Your task to perform on an android device: Open battery settings Image 0: 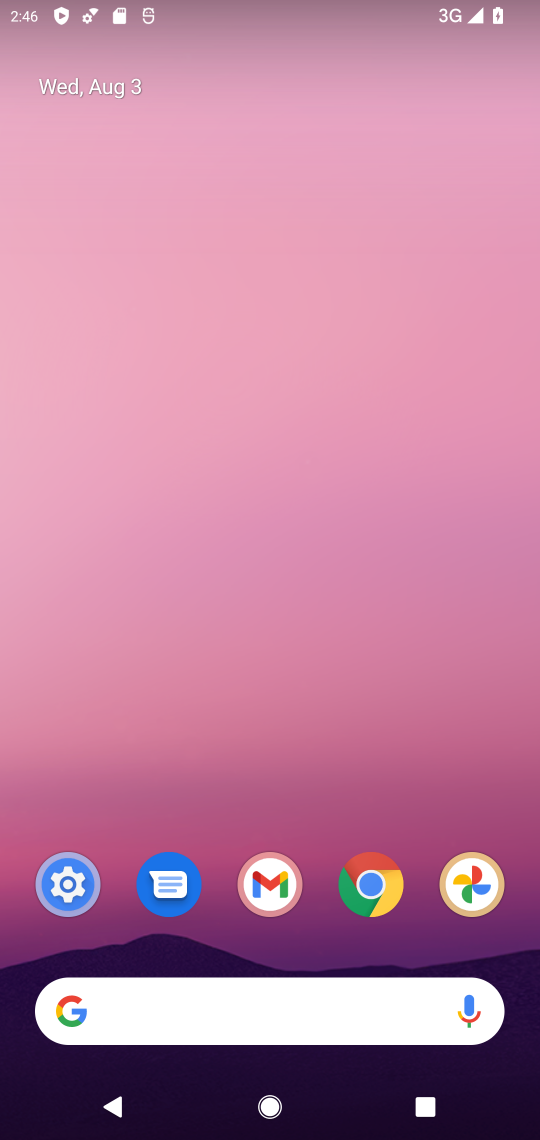
Step 0: click (55, 899)
Your task to perform on an android device: Open battery settings Image 1: 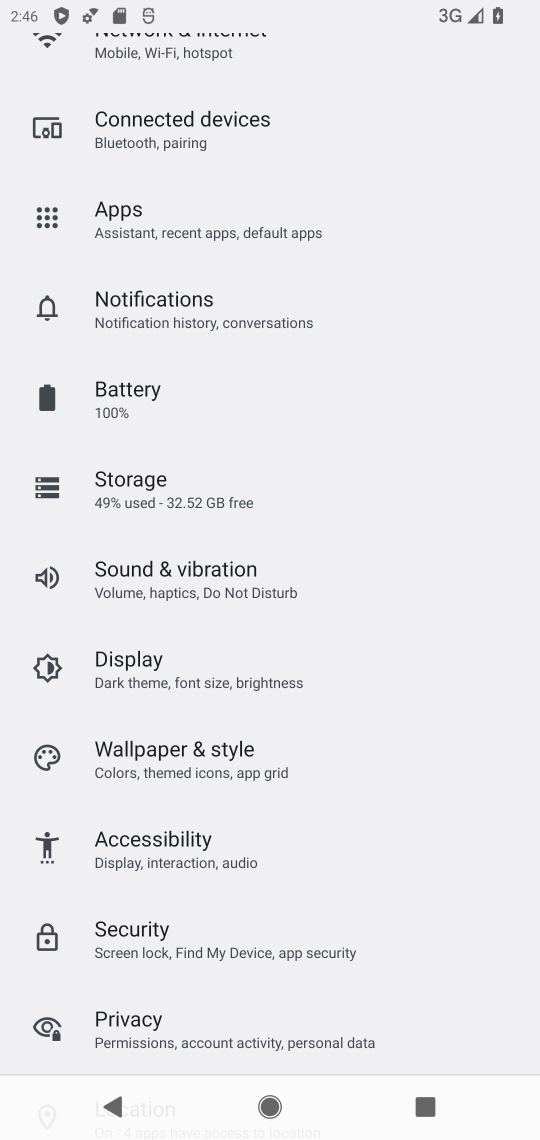
Step 1: click (160, 393)
Your task to perform on an android device: Open battery settings Image 2: 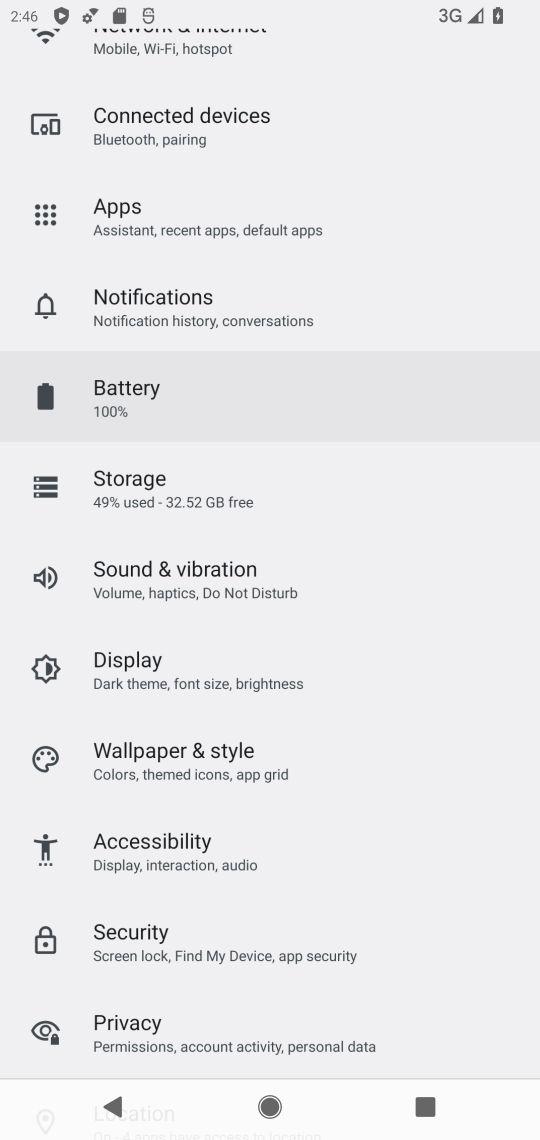
Step 2: task complete